Your task to perform on an android device: Go to Google maps Image 0: 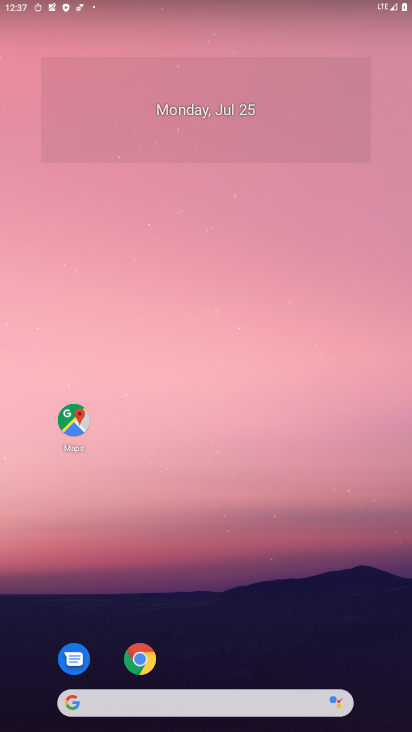
Step 0: click (79, 435)
Your task to perform on an android device: Go to Google maps Image 1: 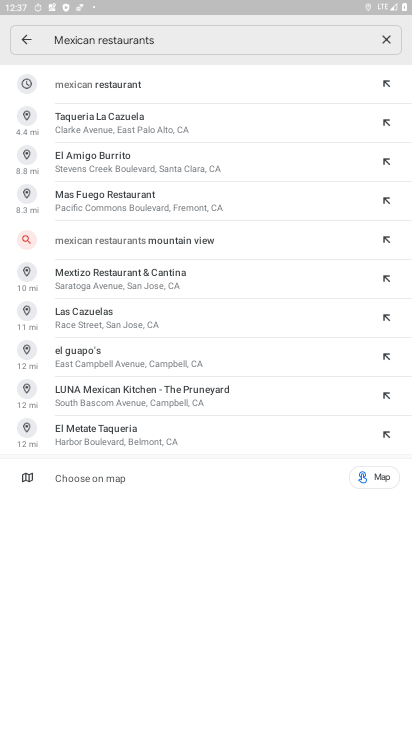
Step 1: click (30, 38)
Your task to perform on an android device: Go to Google maps Image 2: 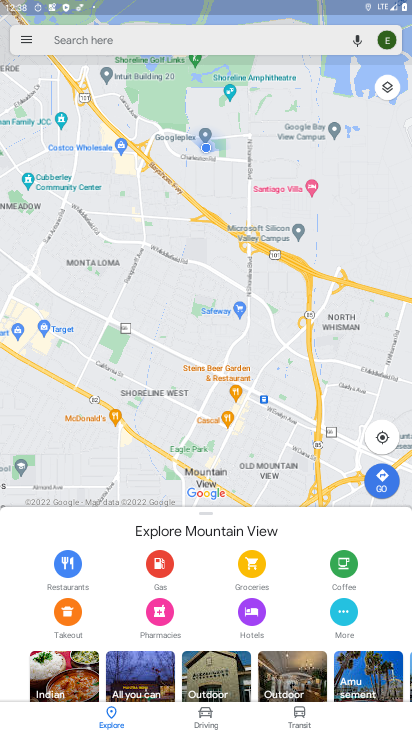
Step 2: task complete